Your task to perform on an android device: What's the weather today? Image 0: 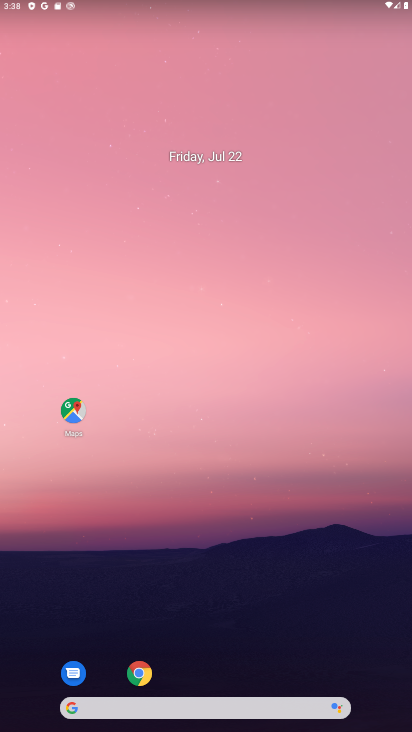
Step 0: drag from (12, 277) to (401, 309)
Your task to perform on an android device: What's the weather today? Image 1: 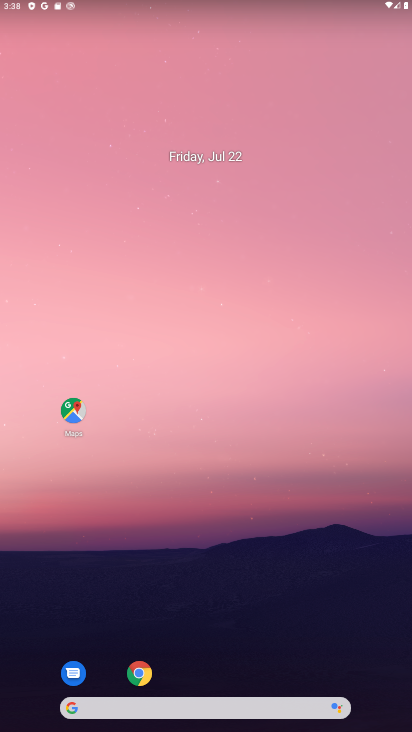
Step 1: drag from (10, 265) to (407, 285)
Your task to perform on an android device: What's the weather today? Image 2: 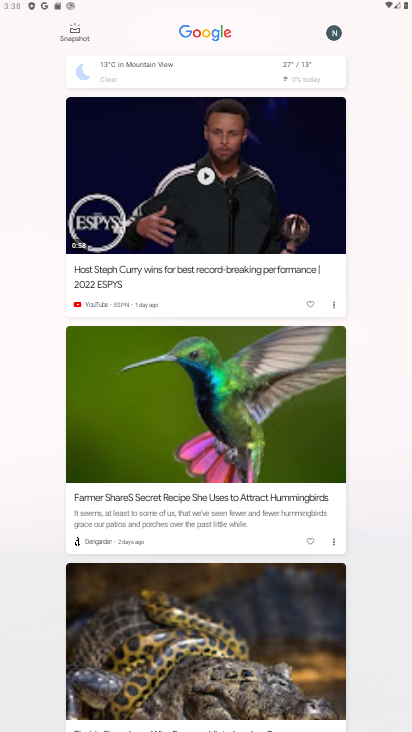
Step 2: click (297, 61)
Your task to perform on an android device: What's the weather today? Image 3: 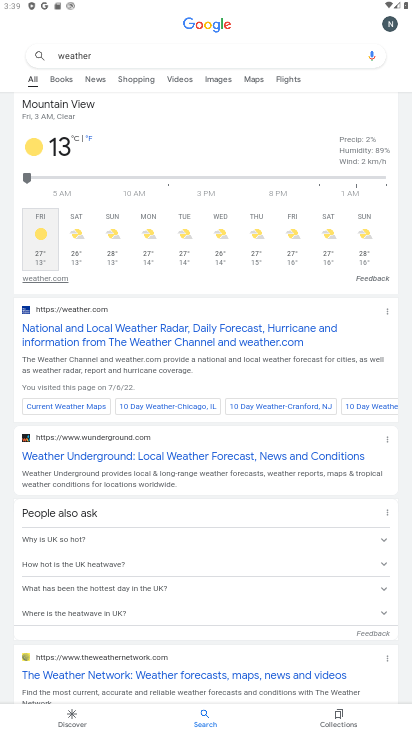
Step 3: task complete